Your task to perform on an android device: allow cookies in the chrome app Image 0: 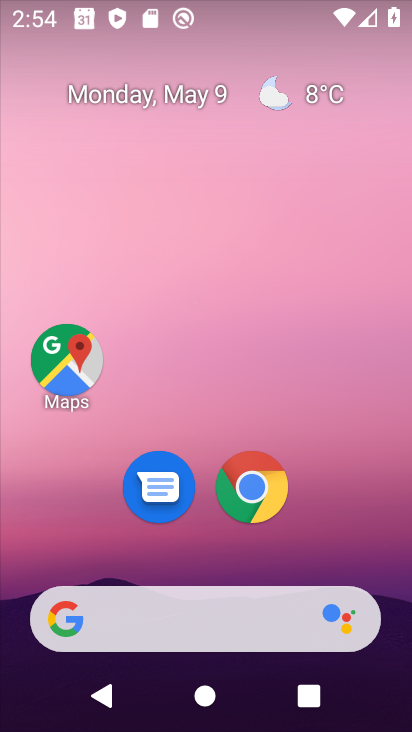
Step 0: click (258, 487)
Your task to perform on an android device: allow cookies in the chrome app Image 1: 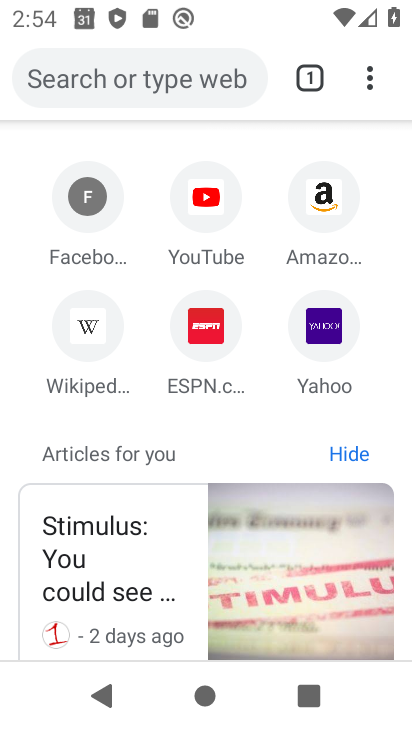
Step 1: click (366, 72)
Your task to perform on an android device: allow cookies in the chrome app Image 2: 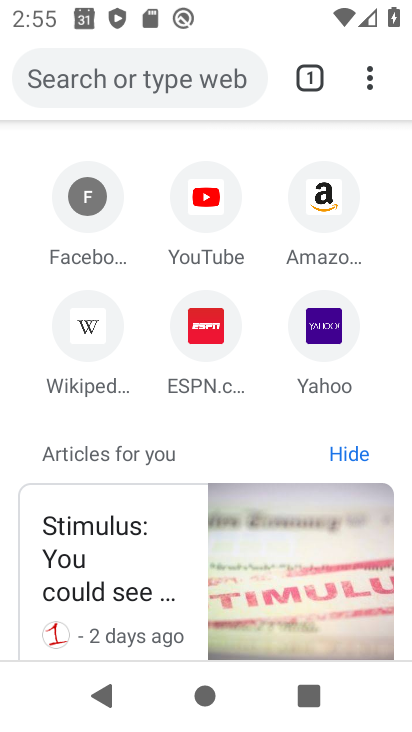
Step 2: click (364, 79)
Your task to perform on an android device: allow cookies in the chrome app Image 3: 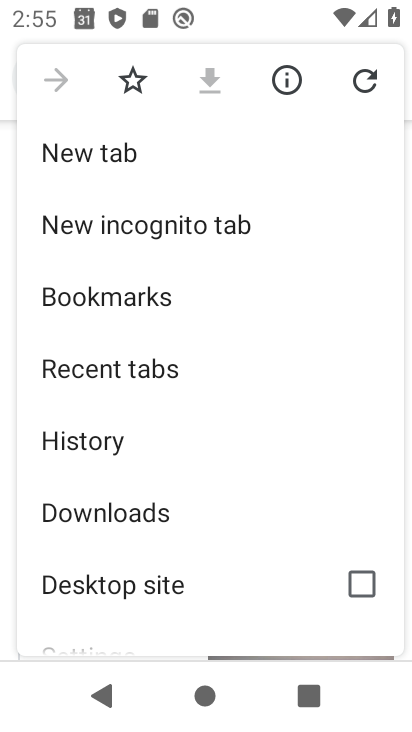
Step 3: drag from (189, 574) to (169, 114)
Your task to perform on an android device: allow cookies in the chrome app Image 4: 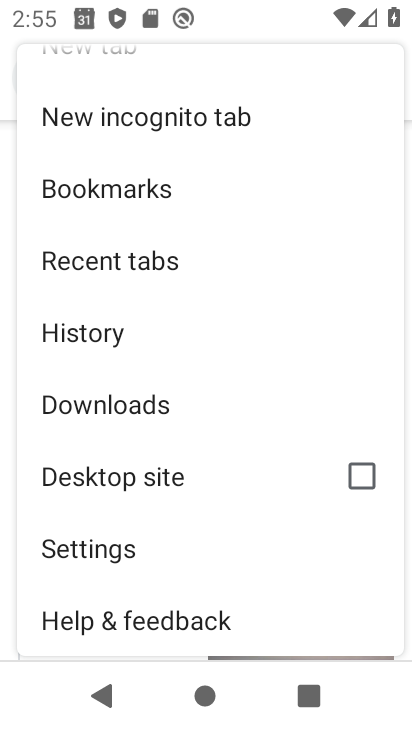
Step 4: click (147, 545)
Your task to perform on an android device: allow cookies in the chrome app Image 5: 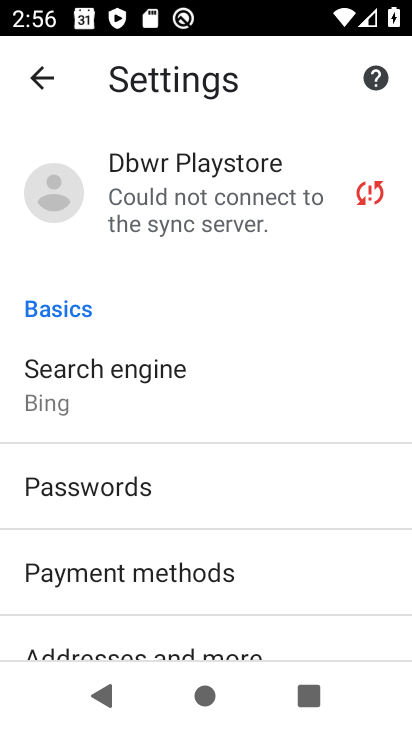
Step 5: drag from (244, 600) to (247, 298)
Your task to perform on an android device: allow cookies in the chrome app Image 6: 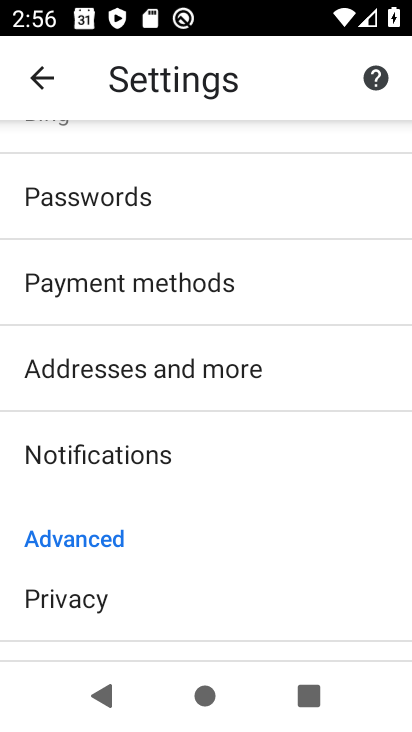
Step 6: drag from (171, 601) to (177, 134)
Your task to perform on an android device: allow cookies in the chrome app Image 7: 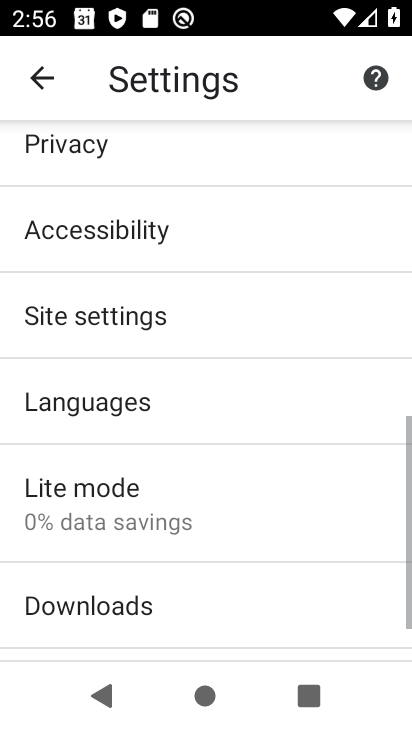
Step 7: click (179, 316)
Your task to perform on an android device: allow cookies in the chrome app Image 8: 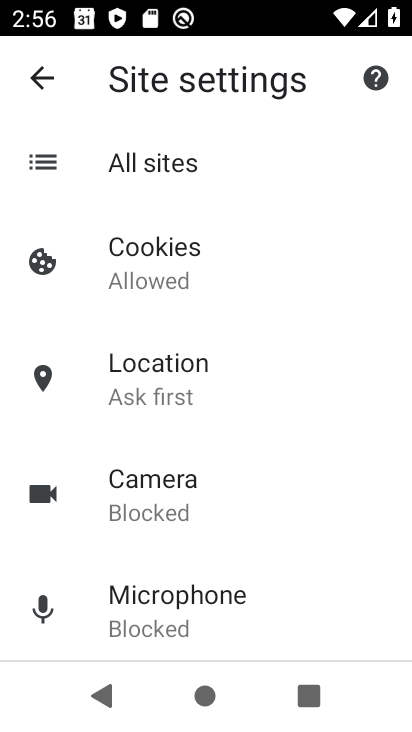
Step 8: click (165, 273)
Your task to perform on an android device: allow cookies in the chrome app Image 9: 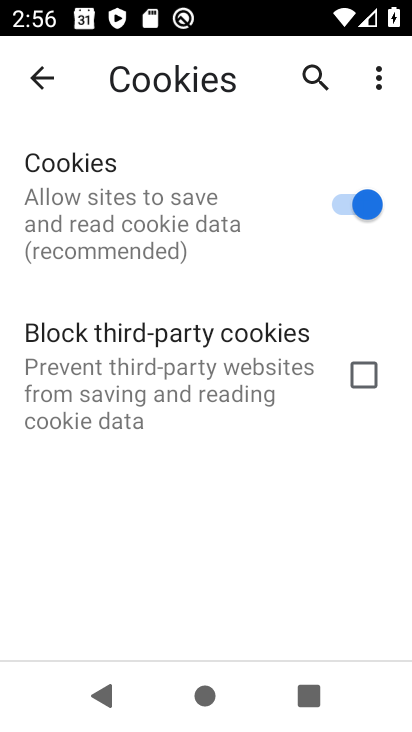
Step 9: task complete